Your task to perform on an android device: change keyboard looks Image 0: 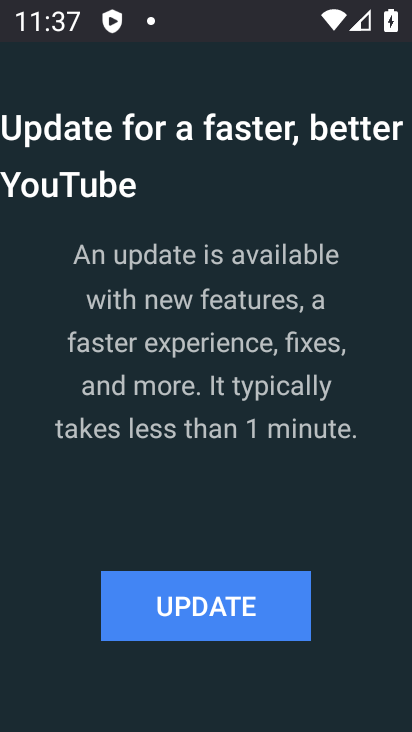
Step 0: press home button
Your task to perform on an android device: change keyboard looks Image 1: 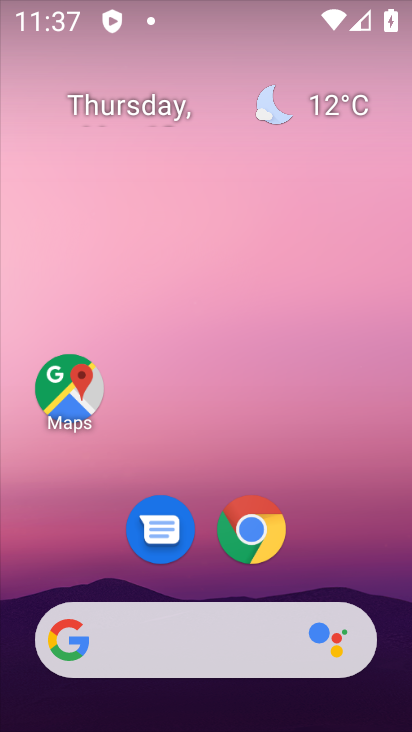
Step 1: drag from (332, 373) to (331, 253)
Your task to perform on an android device: change keyboard looks Image 2: 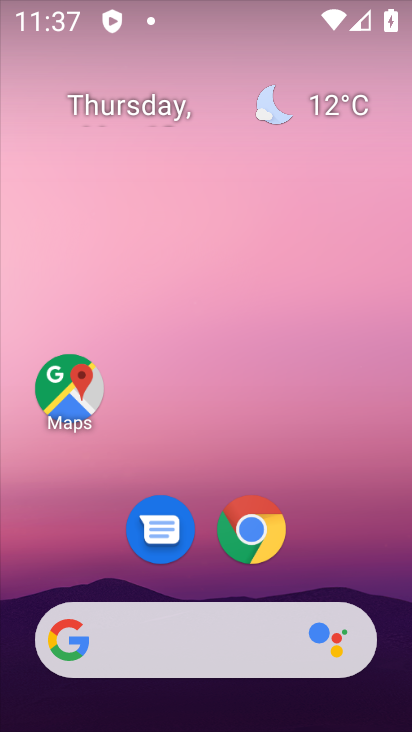
Step 2: drag from (343, 433) to (343, 174)
Your task to perform on an android device: change keyboard looks Image 3: 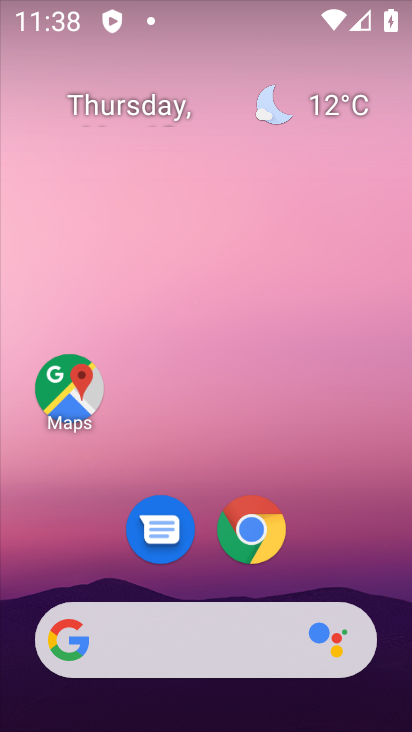
Step 3: drag from (302, 365) to (311, 200)
Your task to perform on an android device: change keyboard looks Image 4: 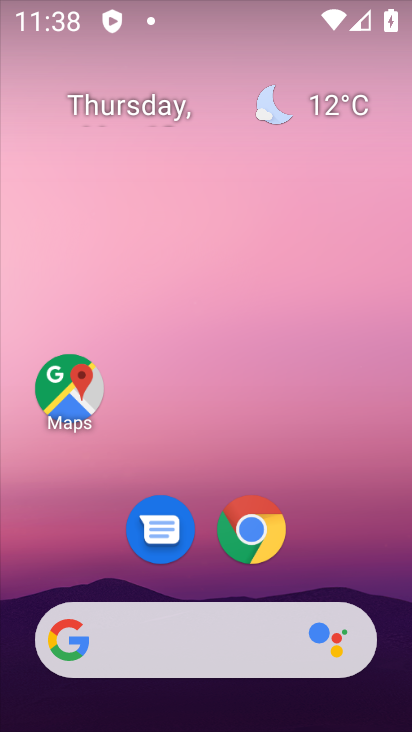
Step 4: drag from (252, 431) to (314, 128)
Your task to perform on an android device: change keyboard looks Image 5: 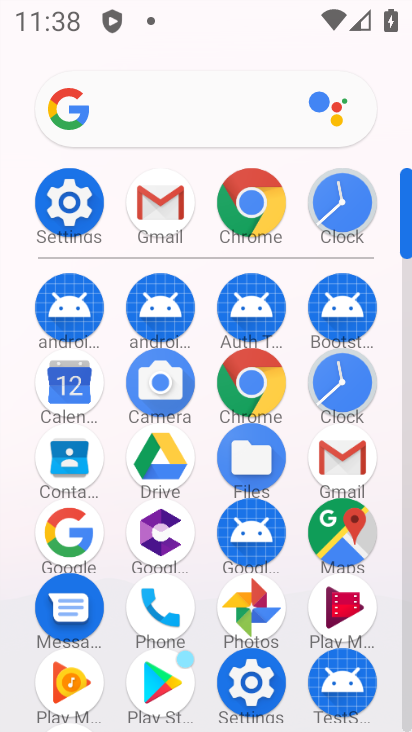
Step 5: click (63, 196)
Your task to perform on an android device: change keyboard looks Image 6: 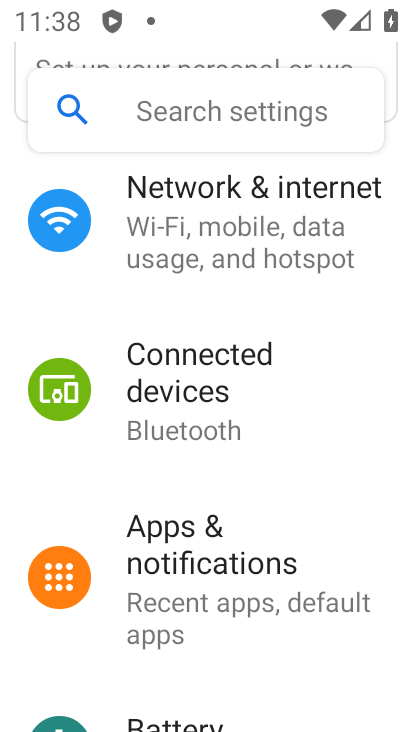
Step 6: drag from (200, 690) to (321, 113)
Your task to perform on an android device: change keyboard looks Image 7: 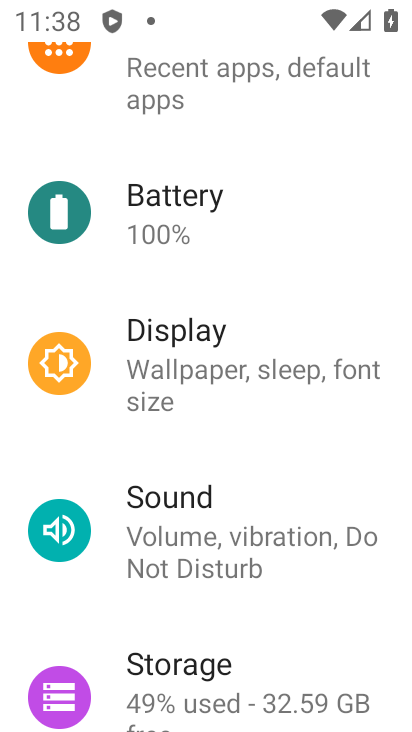
Step 7: drag from (224, 650) to (350, 173)
Your task to perform on an android device: change keyboard looks Image 8: 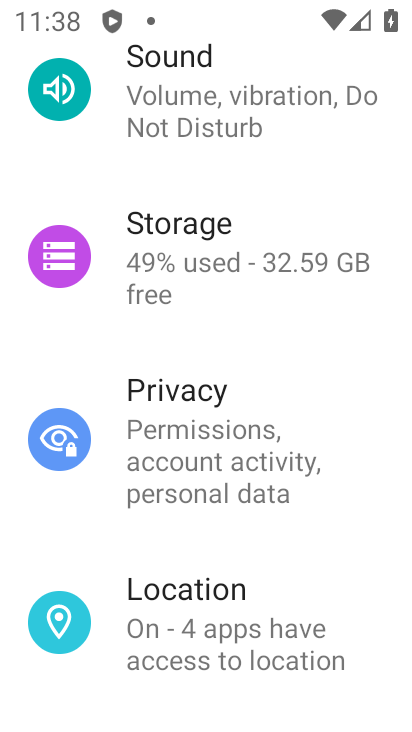
Step 8: drag from (242, 571) to (327, 139)
Your task to perform on an android device: change keyboard looks Image 9: 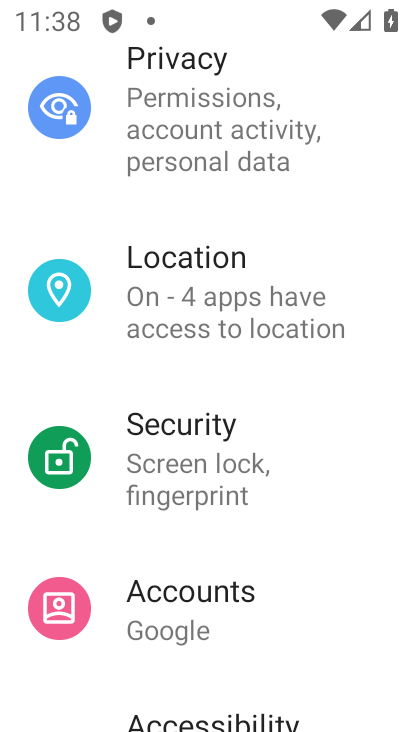
Step 9: drag from (211, 611) to (285, 195)
Your task to perform on an android device: change keyboard looks Image 10: 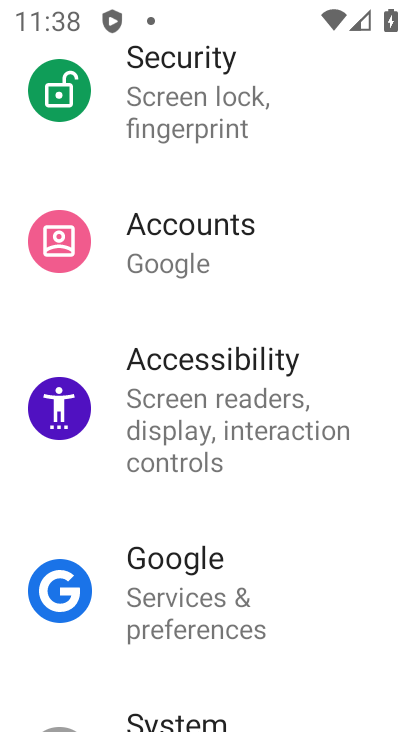
Step 10: drag from (195, 486) to (287, 182)
Your task to perform on an android device: change keyboard looks Image 11: 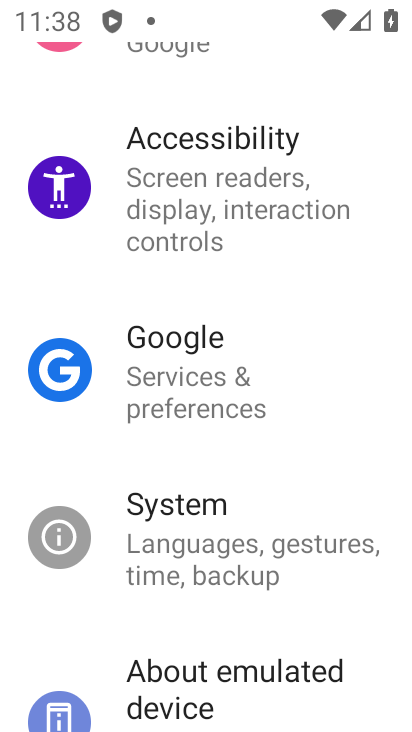
Step 11: click (207, 559)
Your task to perform on an android device: change keyboard looks Image 12: 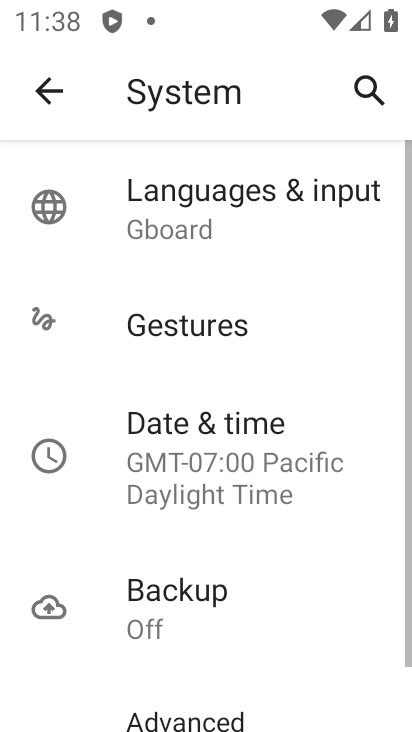
Step 12: click (225, 212)
Your task to perform on an android device: change keyboard looks Image 13: 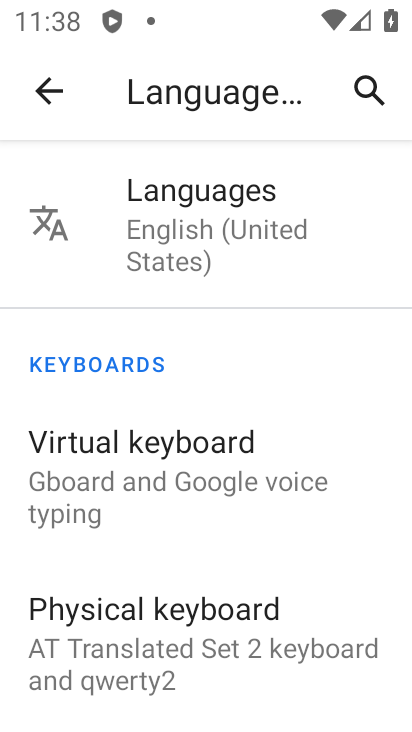
Step 13: click (226, 463)
Your task to perform on an android device: change keyboard looks Image 14: 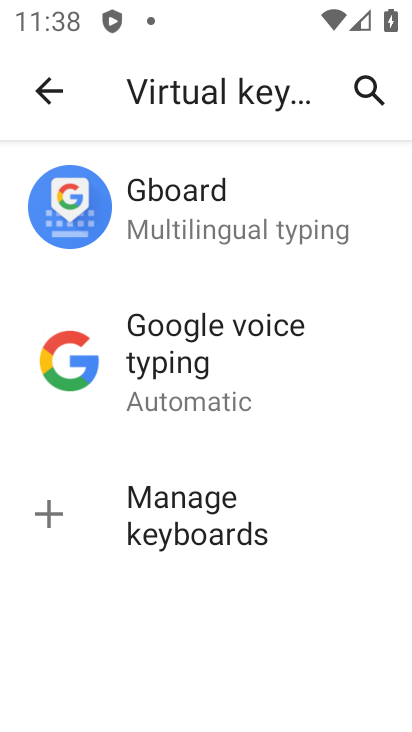
Step 14: click (173, 226)
Your task to perform on an android device: change keyboard looks Image 15: 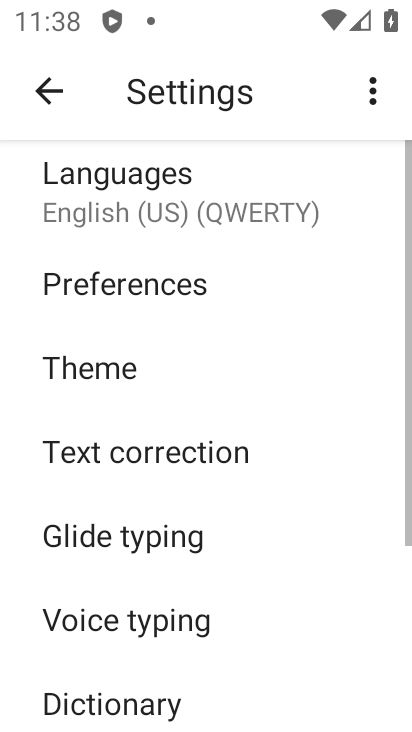
Step 15: drag from (236, 513) to (269, 272)
Your task to perform on an android device: change keyboard looks Image 16: 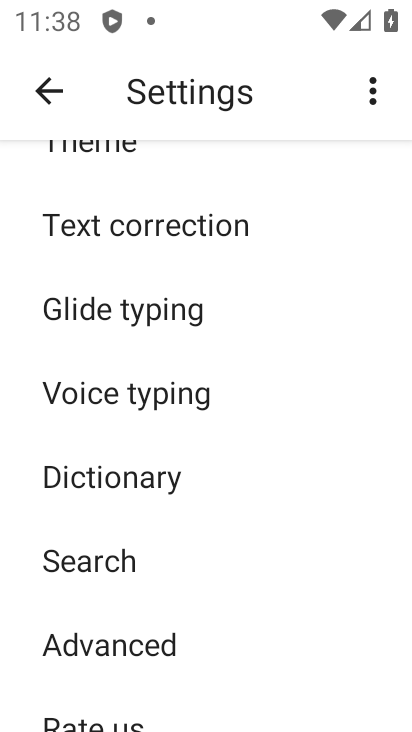
Step 16: click (113, 157)
Your task to perform on an android device: change keyboard looks Image 17: 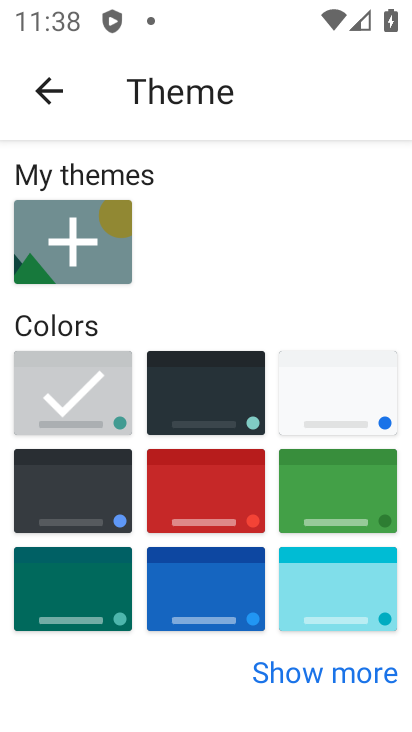
Step 17: click (184, 582)
Your task to perform on an android device: change keyboard looks Image 18: 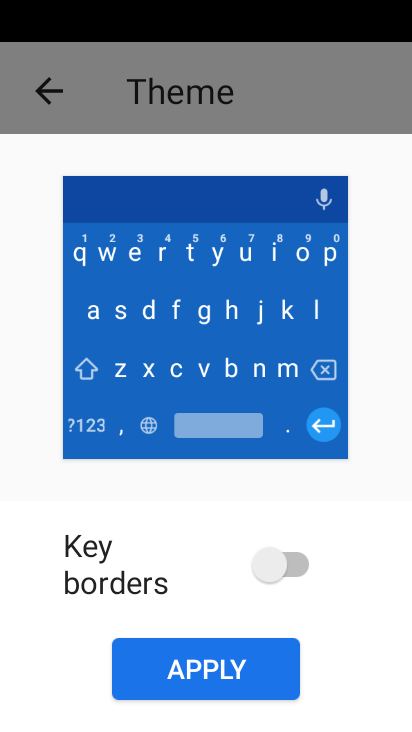
Step 18: click (267, 566)
Your task to perform on an android device: change keyboard looks Image 19: 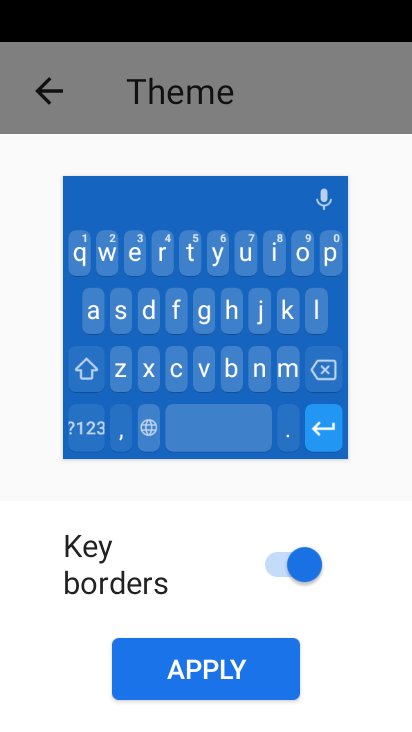
Step 19: click (217, 668)
Your task to perform on an android device: change keyboard looks Image 20: 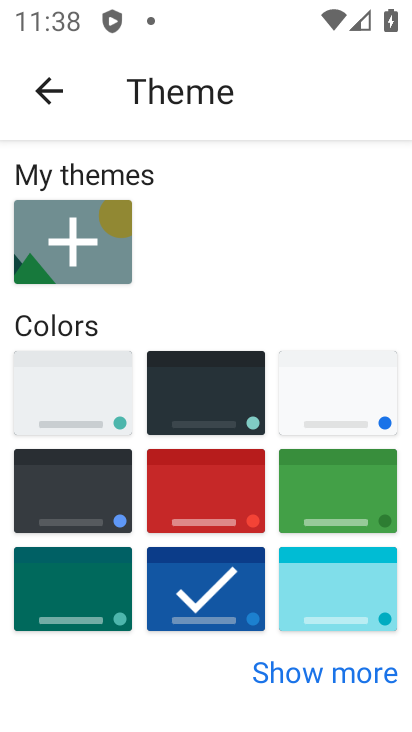
Step 20: task complete